Your task to perform on an android device: Open the calendar and show me this week's events? Image 0: 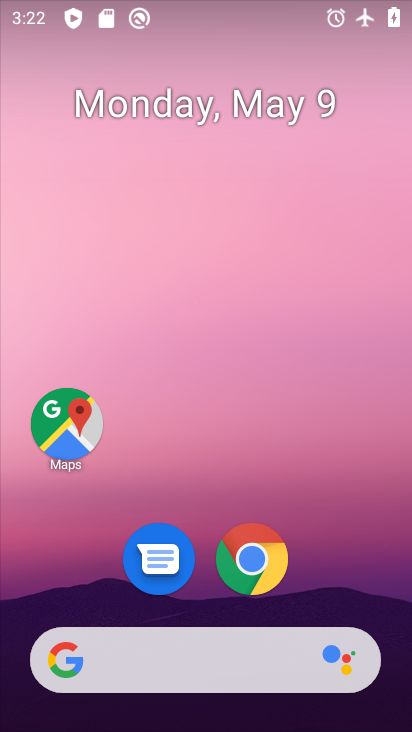
Step 0: drag from (200, 725) to (203, 274)
Your task to perform on an android device: Open the calendar and show me this week's events? Image 1: 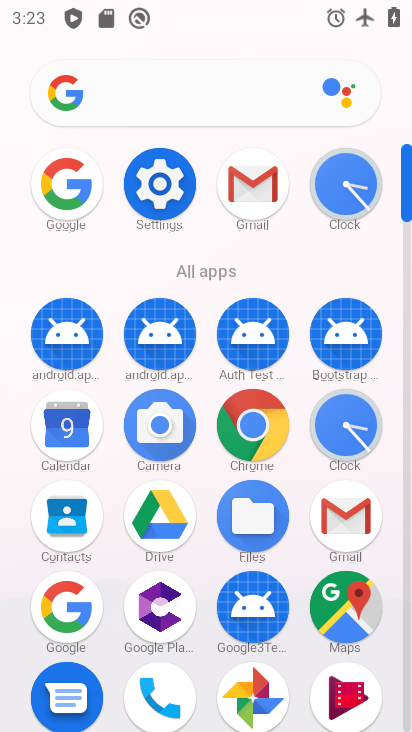
Step 1: click (61, 419)
Your task to perform on an android device: Open the calendar and show me this week's events? Image 2: 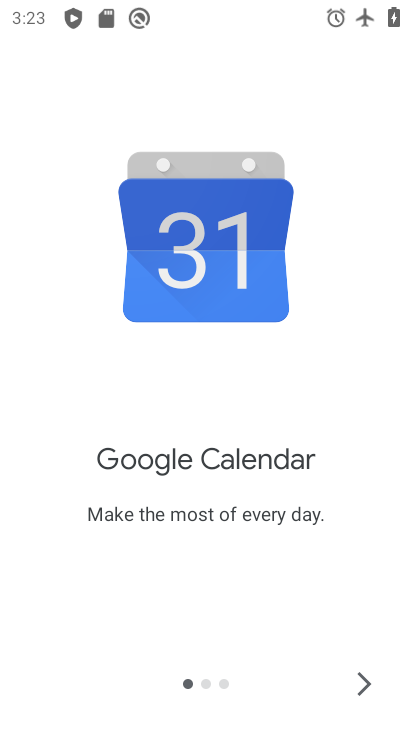
Step 2: click (372, 683)
Your task to perform on an android device: Open the calendar and show me this week's events? Image 3: 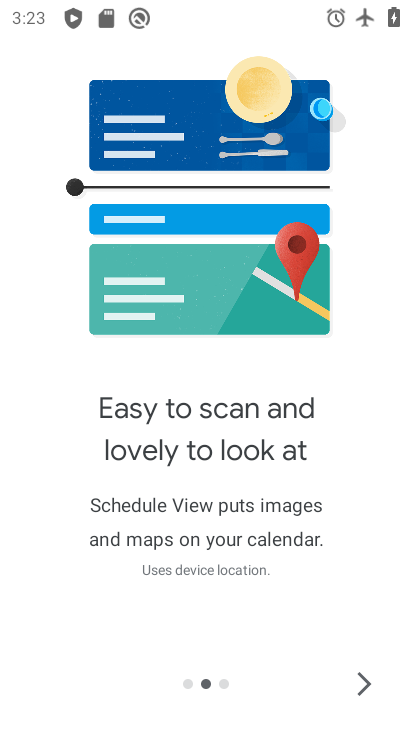
Step 3: click (365, 680)
Your task to perform on an android device: Open the calendar and show me this week's events? Image 4: 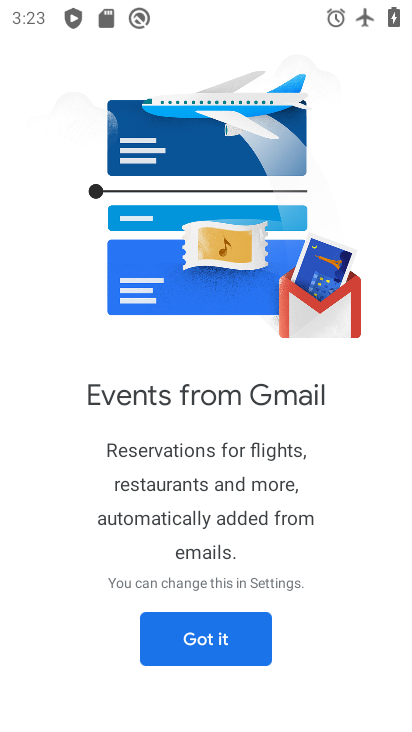
Step 4: click (207, 643)
Your task to perform on an android device: Open the calendar and show me this week's events? Image 5: 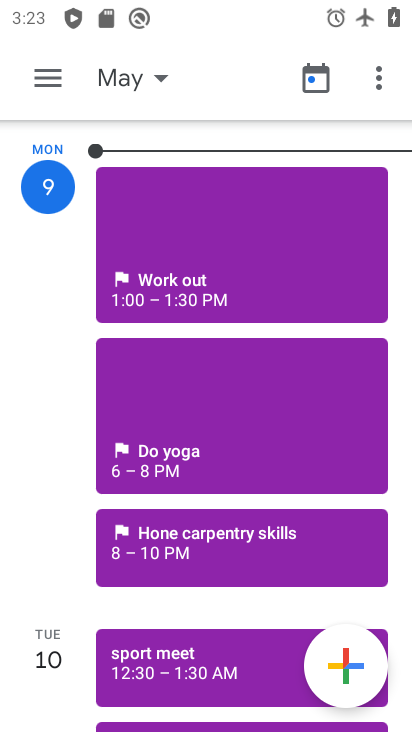
Step 5: click (48, 78)
Your task to perform on an android device: Open the calendar and show me this week's events? Image 6: 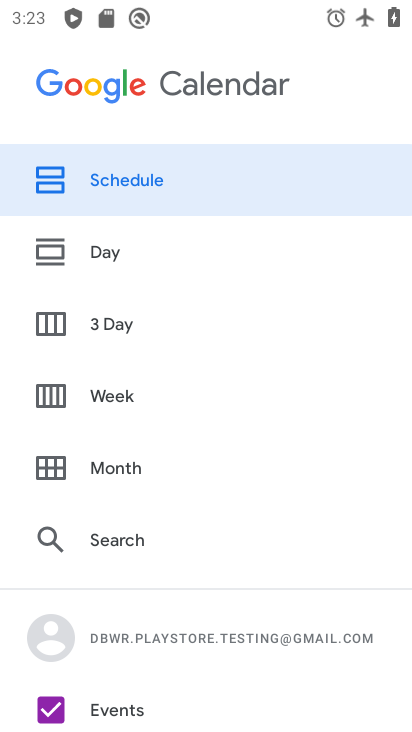
Step 6: drag from (148, 668) to (227, 289)
Your task to perform on an android device: Open the calendar and show me this week's events? Image 7: 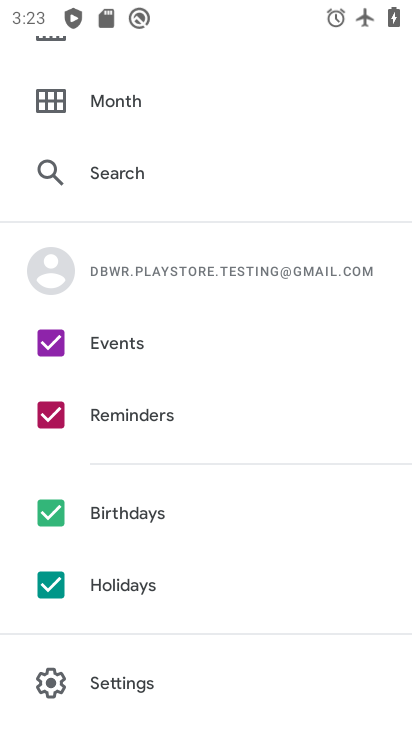
Step 7: click (40, 581)
Your task to perform on an android device: Open the calendar and show me this week's events? Image 8: 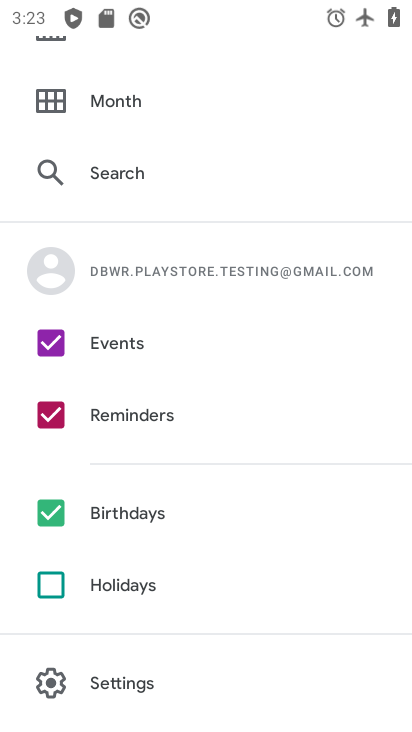
Step 8: click (59, 507)
Your task to perform on an android device: Open the calendar and show me this week's events? Image 9: 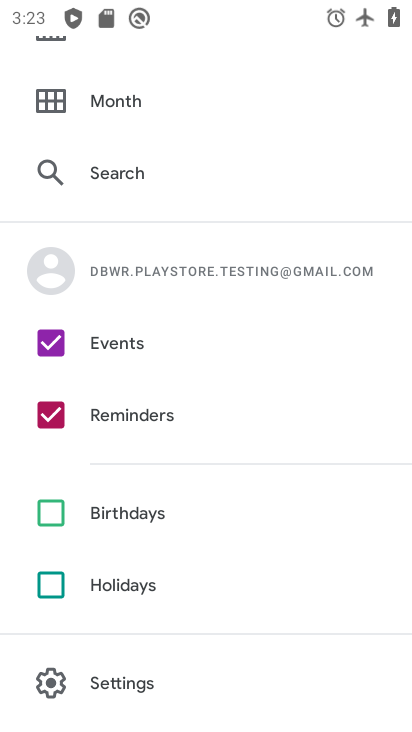
Step 9: click (53, 414)
Your task to perform on an android device: Open the calendar and show me this week's events? Image 10: 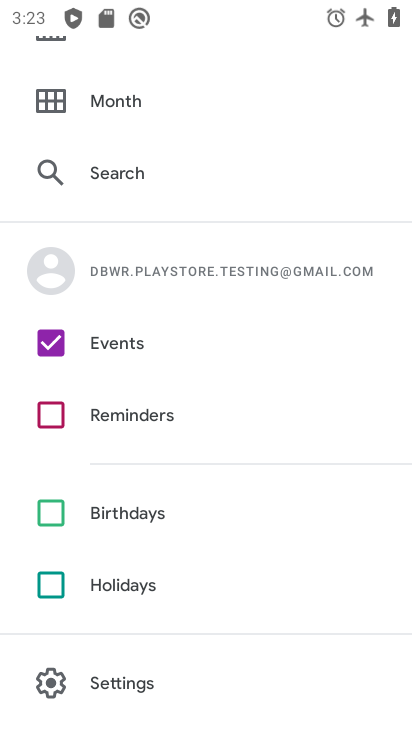
Step 10: drag from (263, 144) to (285, 442)
Your task to perform on an android device: Open the calendar and show me this week's events? Image 11: 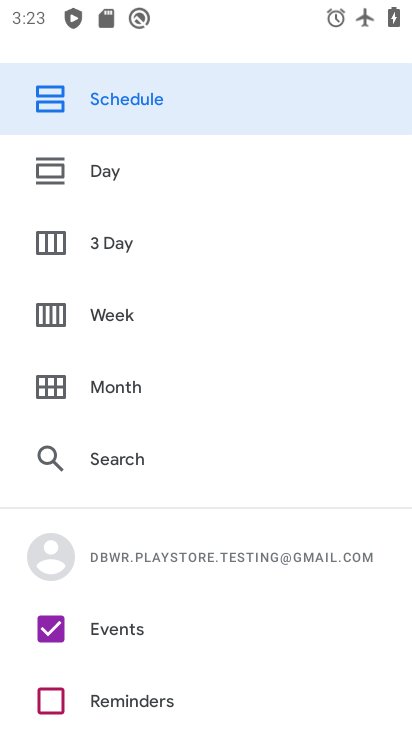
Step 11: click (91, 311)
Your task to perform on an android device: Open the calendar and show me this week's events? Image 12: 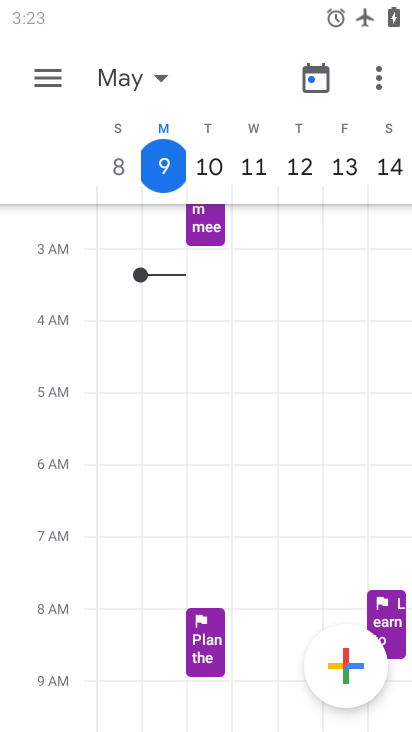
Step 12: task complete